Your task to perform on an android device: Where can I buy a nice beach blanket? Image 0: 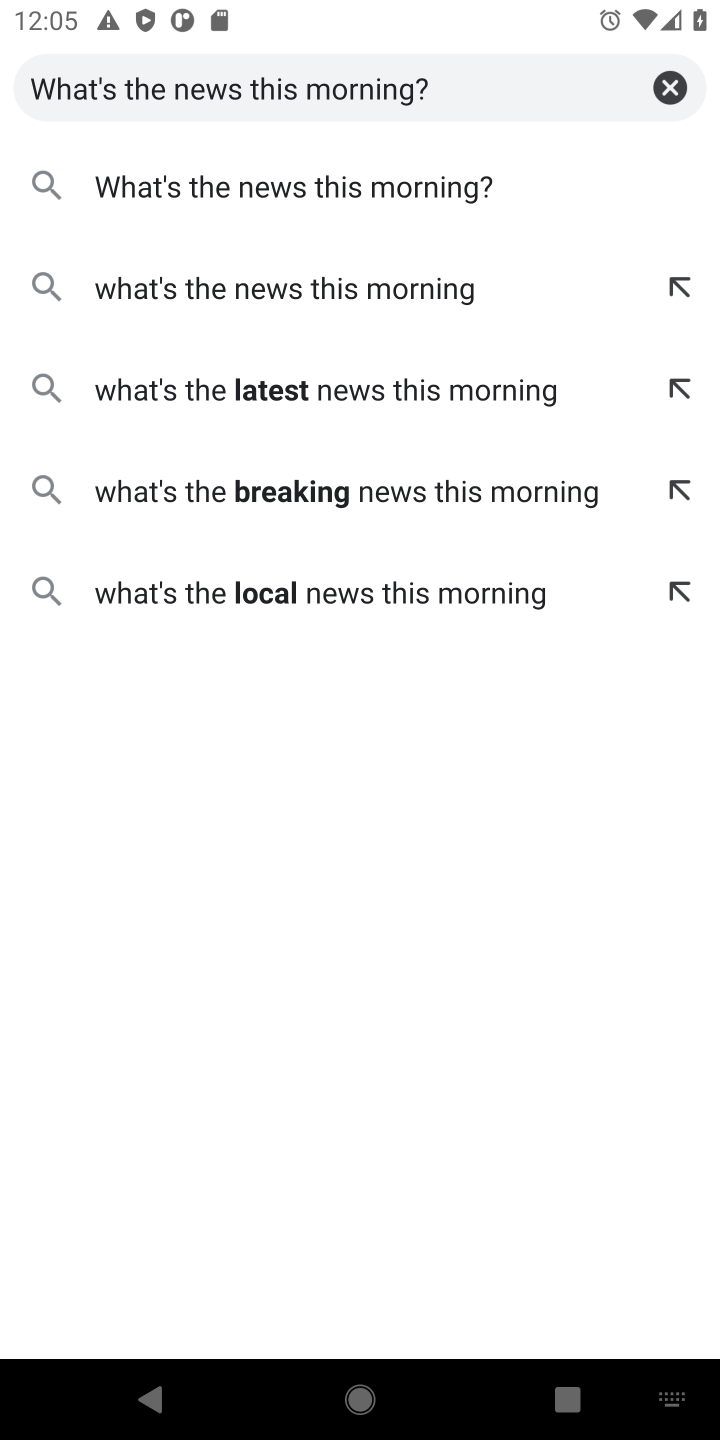
Step 0: click (449, 186)
Your task to perform on an android device: Where can I buy a nice beach blanket? Image 1: 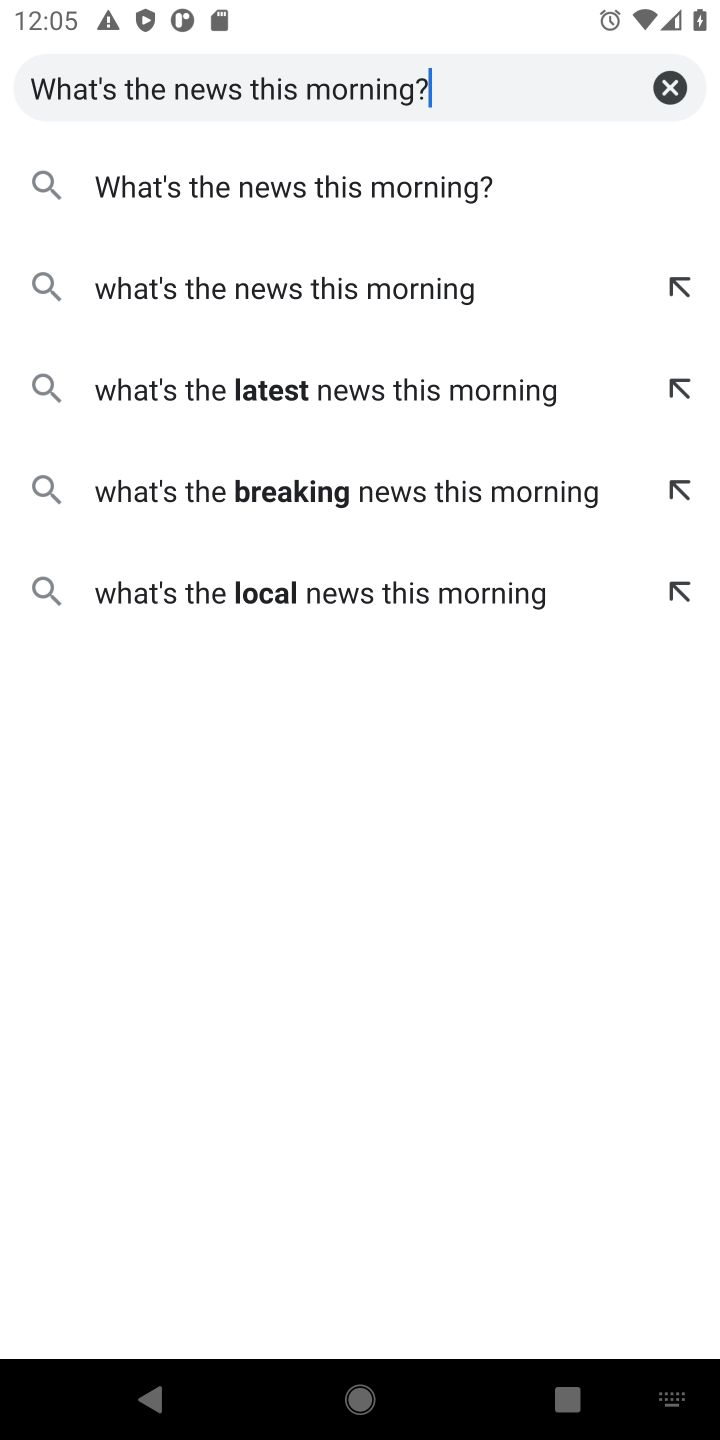
Step 1: click (432, 186)
Your task to perform on an android device: Where can I buy a nice beach blanket? Image 2: 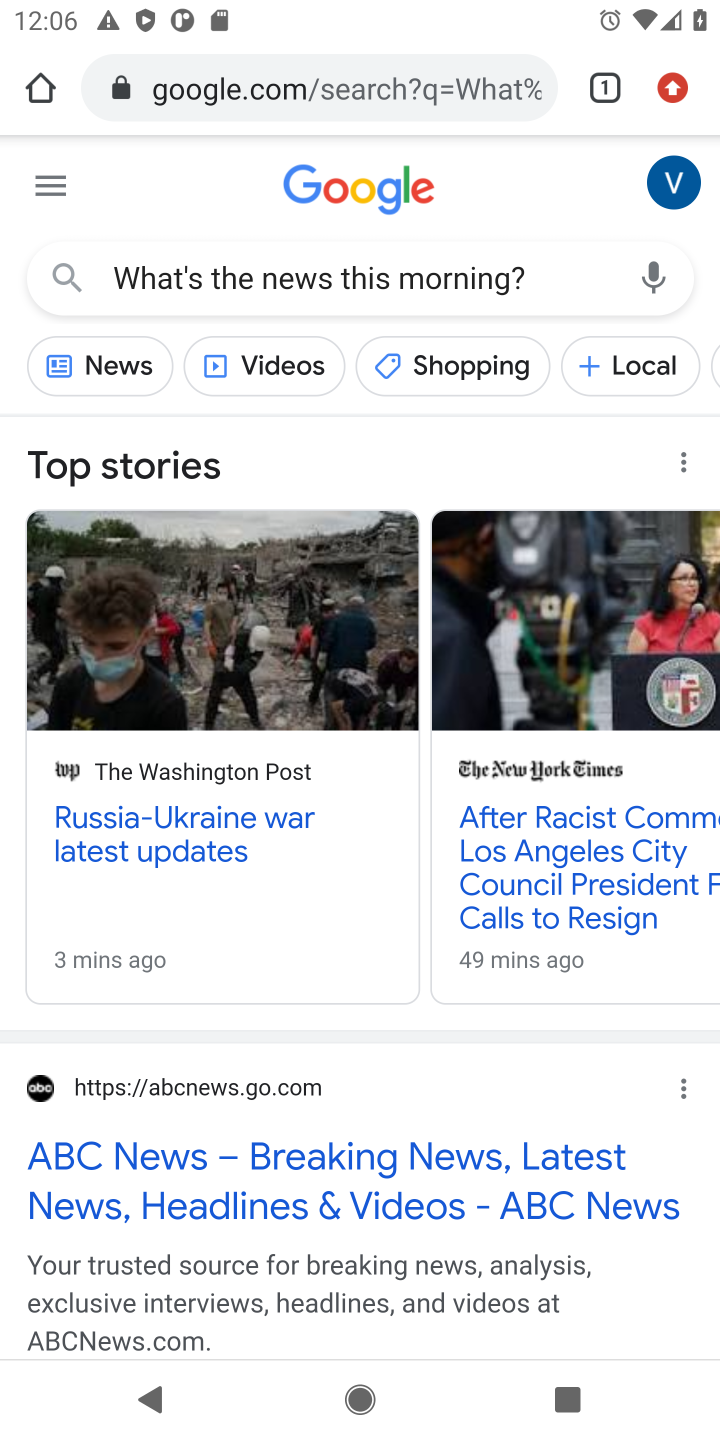
Step 2: task complete